Your task to perform on an android device: turn on location history Image 0: 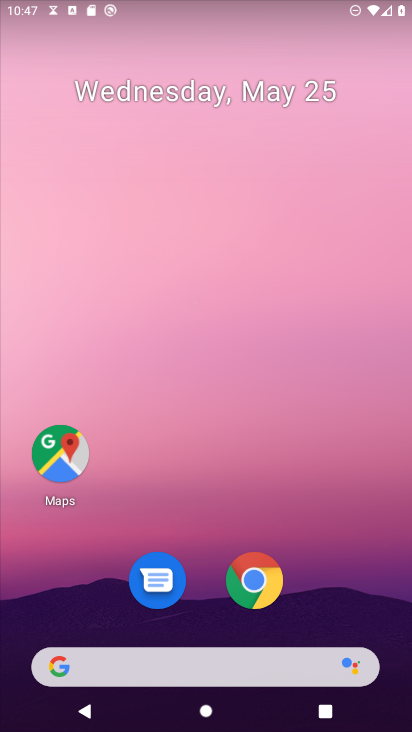
Step 0: press home button
Your task to perform on an android device: turn on location history Image 1: 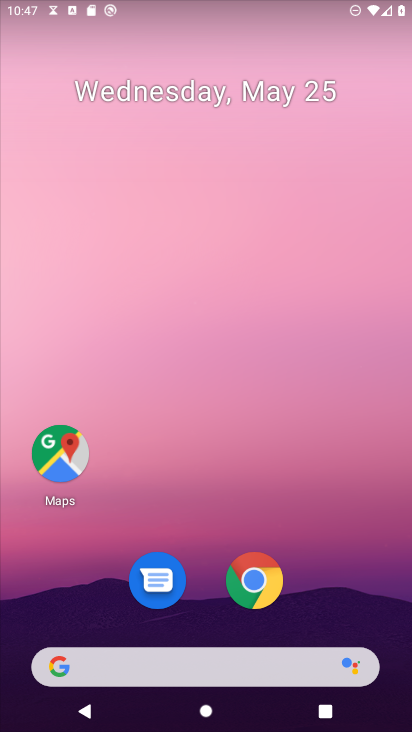
Step 1: drag from (67, 515) to (303, 76)
Your task to perform on an android device: turn on location history Image 2: 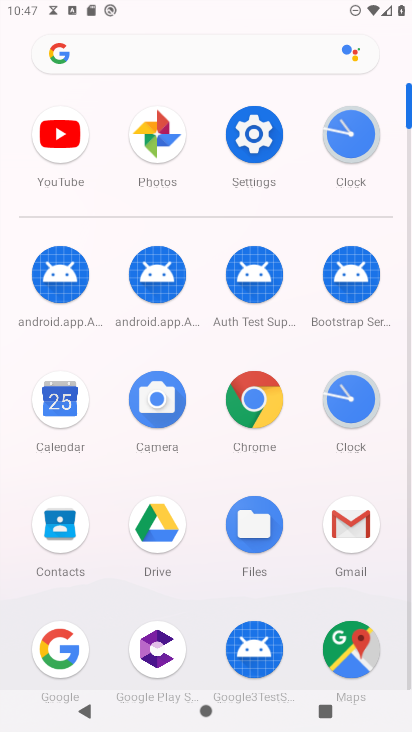
Step 2: click (269, 104)
Your task to perform on an android device: turn on location history Image 3: 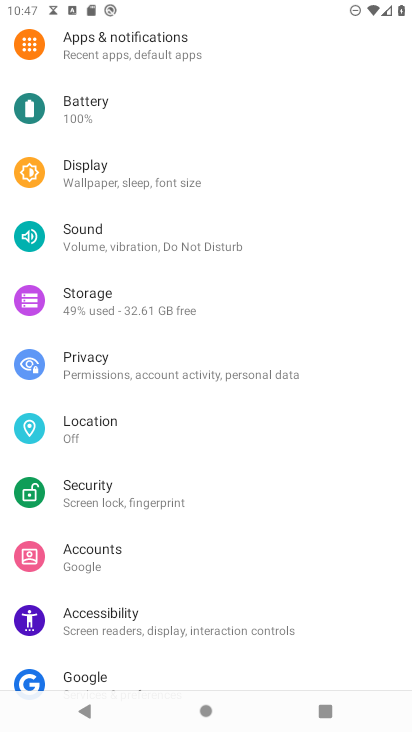
Step 3: click (120, 430)
Your task to perform on an android device: turn on location history Image 4: 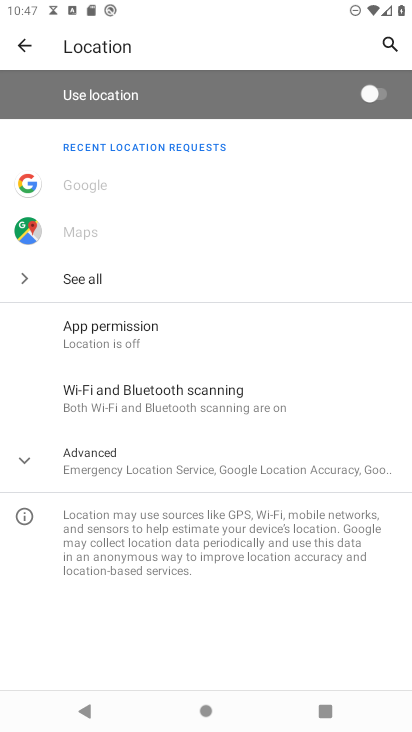
Step 4: click (153, 458)
Your task to perform on an android device: turn on location history Image 5: 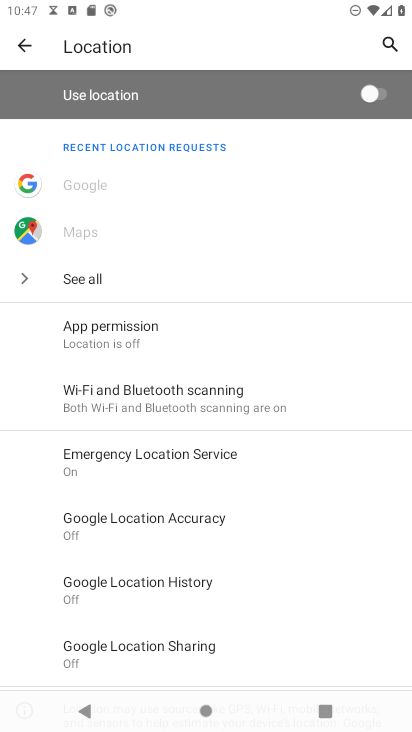
Step 5: click (133, 590)
Your task to perform on an android device: turn on location history Image 6: 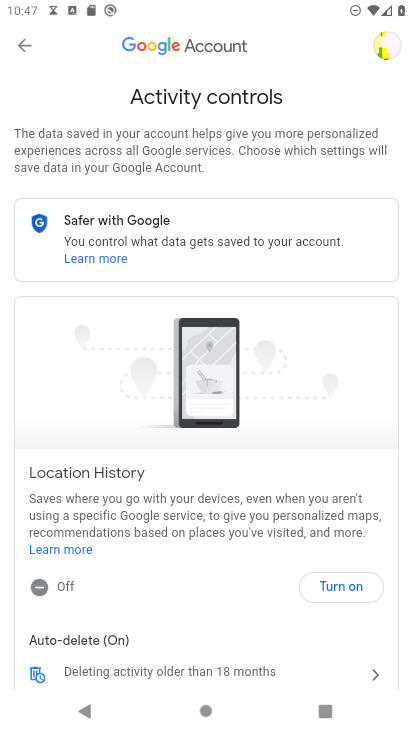
Step 6: click (353, 583)
Your task to perform on an android device: turn on location history Image 7: 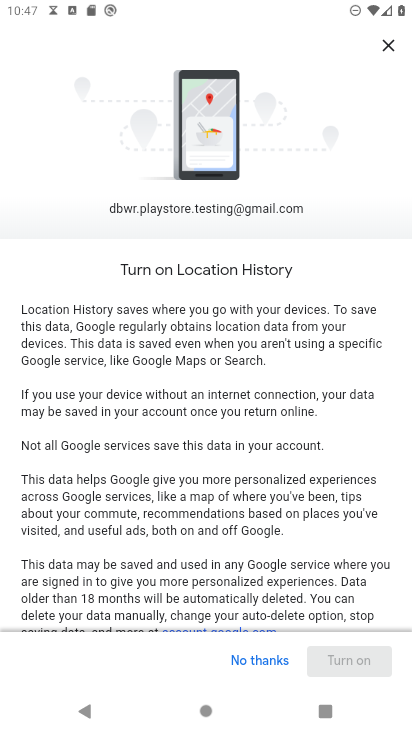
Step 7: drag from (28, 549) to (306, 184)
Your task to perform on an android device: turn on location history Image 8: 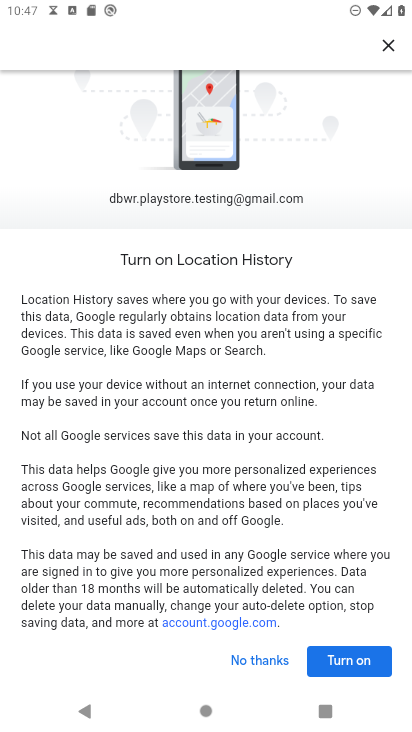
Step 8: click (320, 667)
Your task to perform on an android device: turn on location history Image 9: 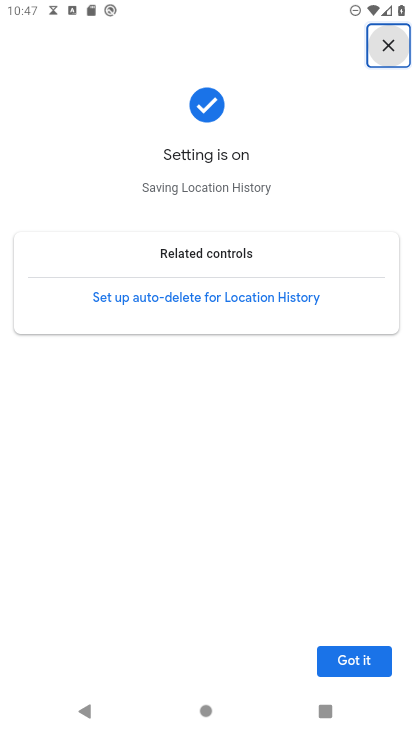
Step 9: click (365, 663)
Your task to perform on an android device: turn on location history Image 10: 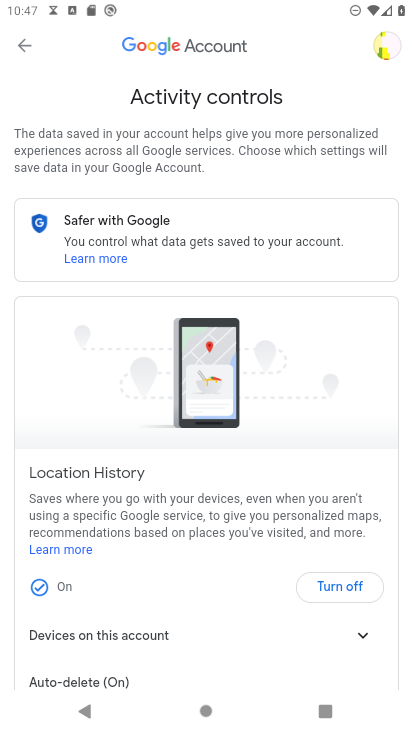
Step 10: task complete